Your task to perform on an android device: move a message to another label in the gmail app Image 0: 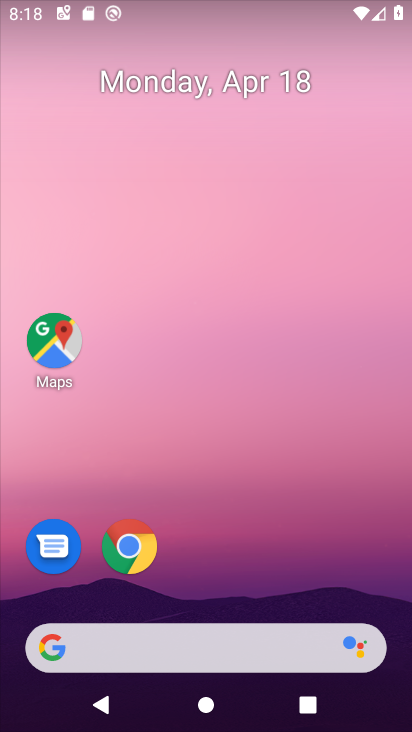
Step 0: drag from (268, 581) to (183, 72)
Your task to perform on an android device: move a message to another label in the gmail app Image 1: 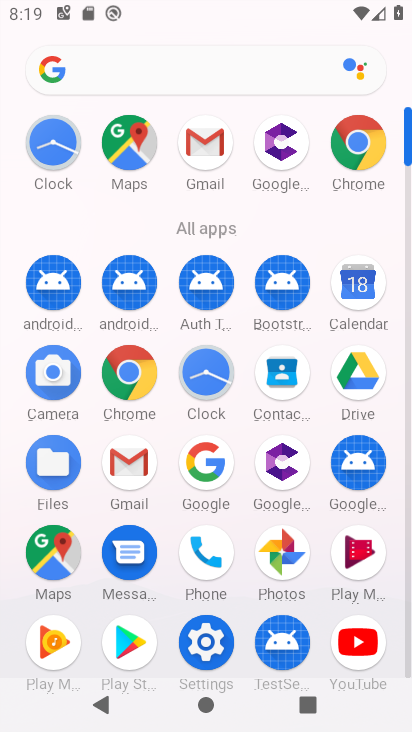
Step 1: click (198, 143)
Your task to perform on an android device: move a message to another label in the gmail app Image 2: 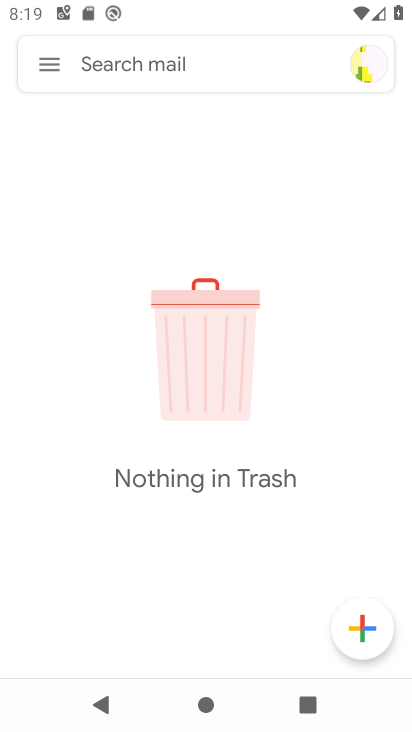
Step 2: click (63, 71)
Your task to perform on an android device: move a message to another label in the gmail app Image 3: 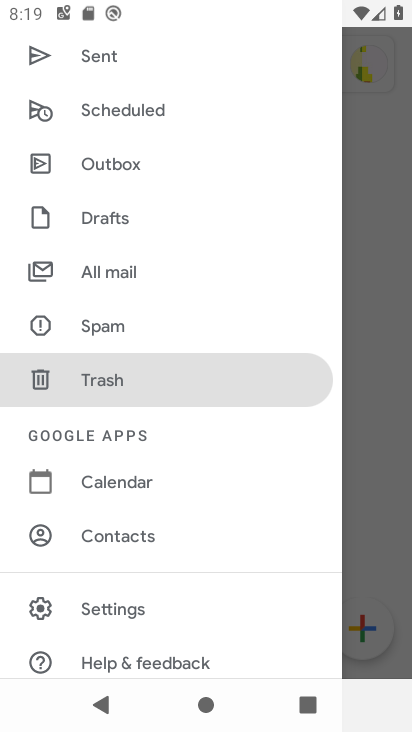
Step 3: click (138, 284)
Your task to perform on an android device: move a message to another label in the gmail app Image 4: 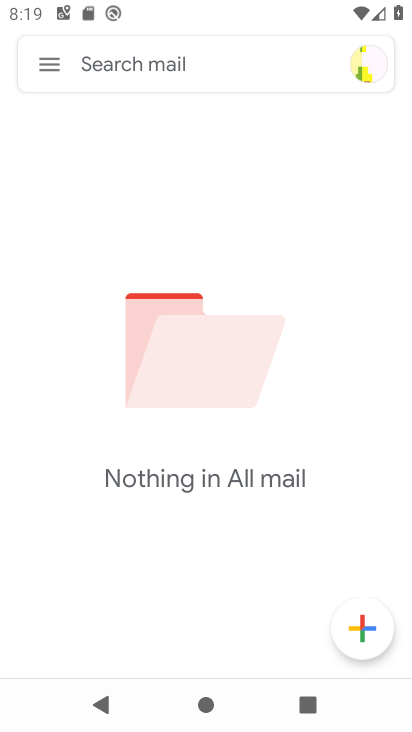
Step 4: task complete